Your task to perform on an android device: Open settings on Google Maps Image 0: 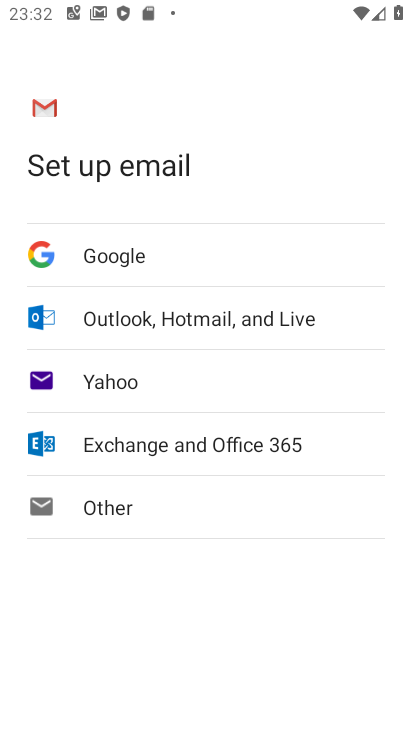
Step 0: press home button
Your task to perform on an android device: Open settings on Google Maps Image 1: 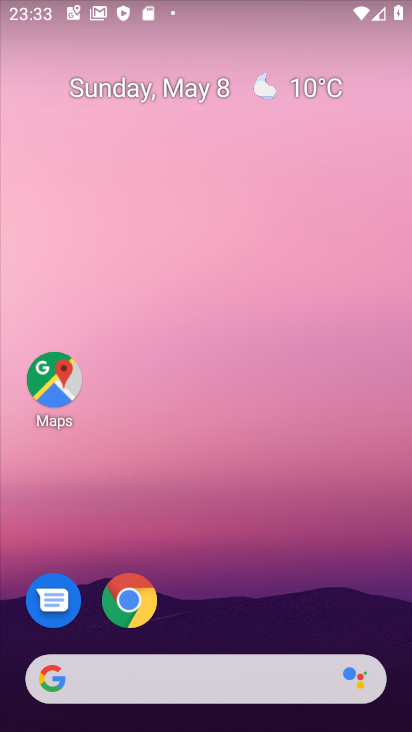
Step 1: click (50, 394)
Your task to perform on an android device: Open settings on Google Maps Image 2: 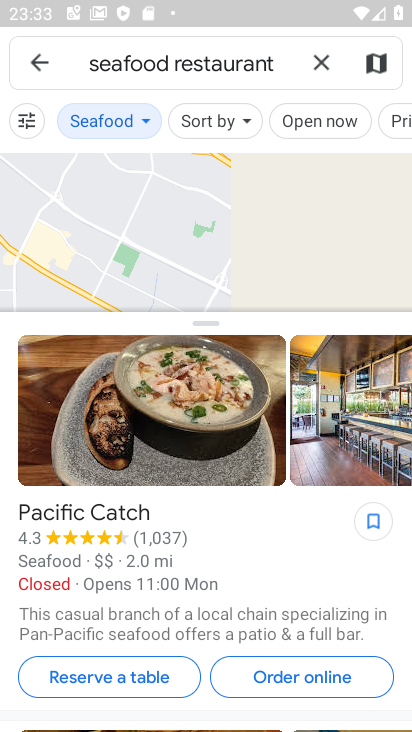
Step 2: click (51, 63)
Your task to perform on an android device: Open settings on Google Maps Image 3: 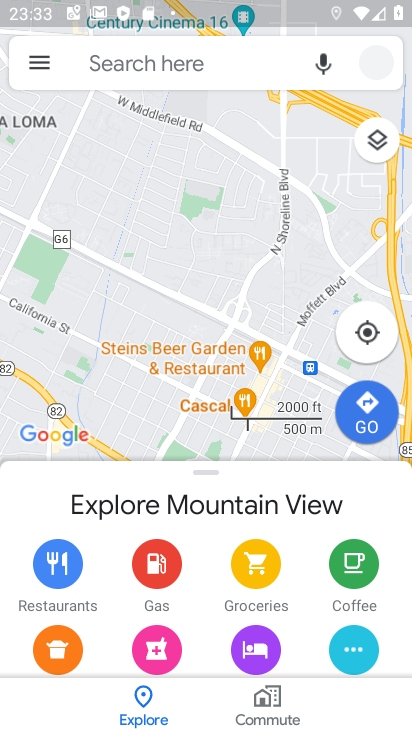
Step 3: click (51, 63)
Your task to perform on an android device: Open settings on Google Maps Image 4: 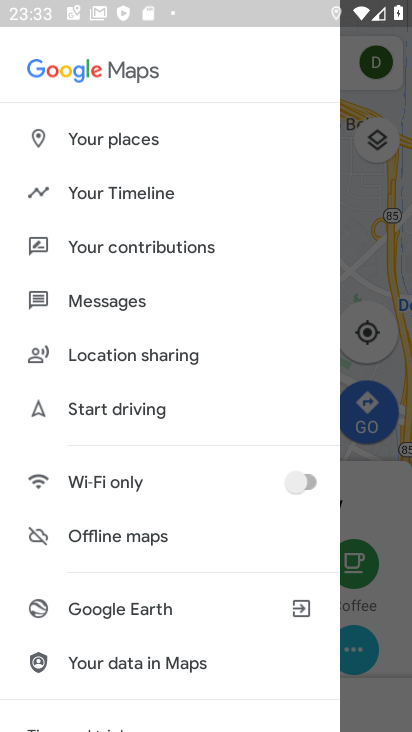
Step 4: drag from (157, 597) to (190, 120)
Your task to perform on an android device: Open settings on Google Maps Image 5: 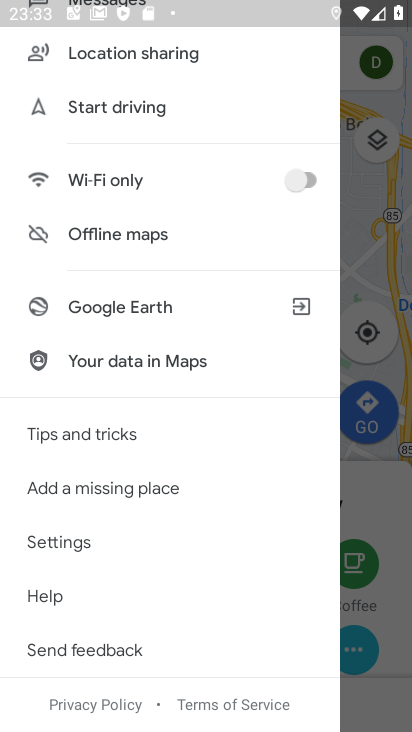
Step 5: click (82, 548)
Your task to perform on an android device: Open settings on Google Maps Image 6: 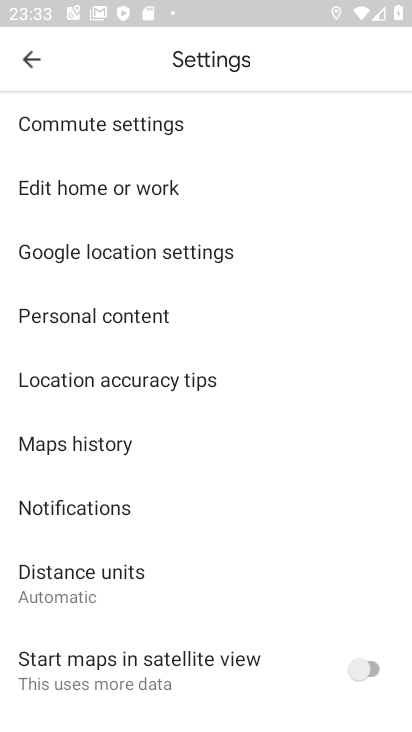
Step 6: task complete